Your task to perform on an android device: install app "Google Drive" Image 0: 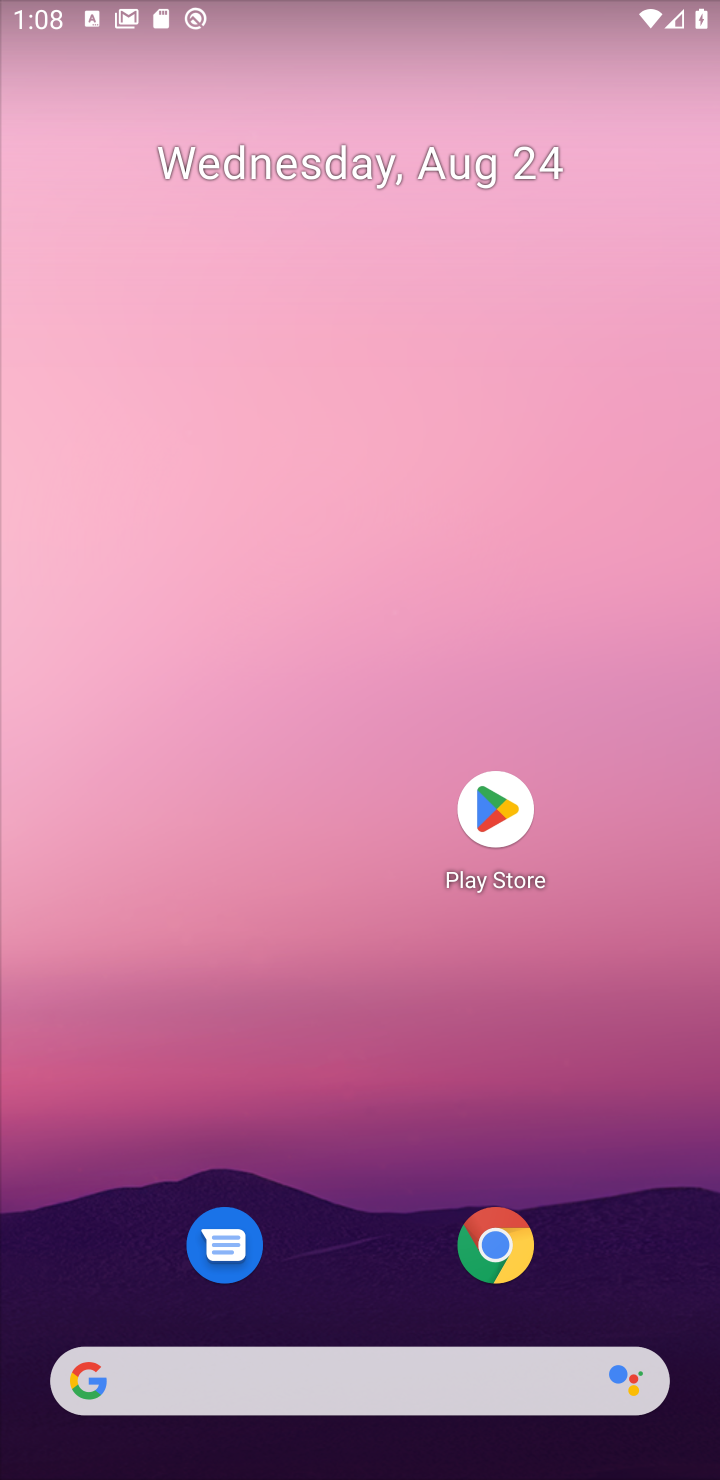
Step 0: click (486, 811)
Your task to perform on an android device: install app "Google Drive" Image 1: 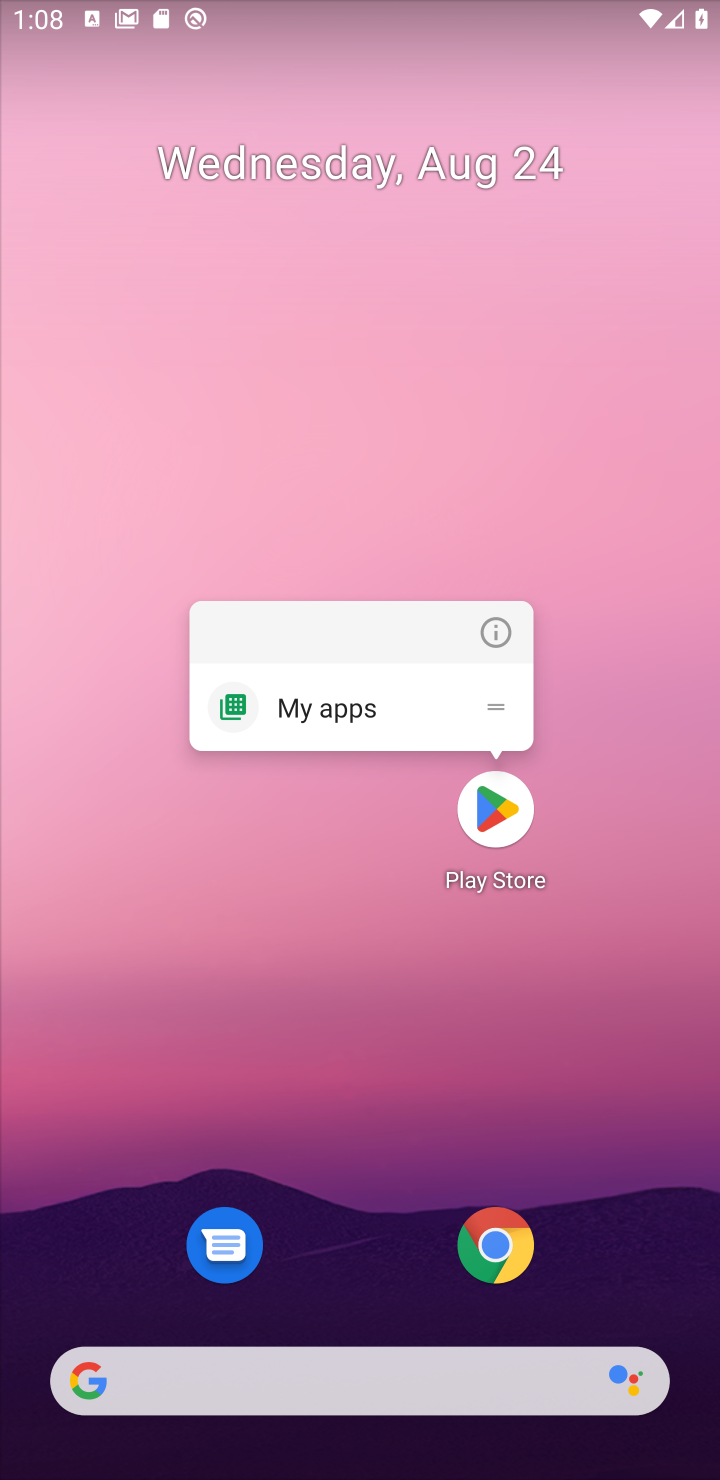
Step 1: click (497, 799)
Your task to perform on an android device: install app "Google Drive" Image 2: 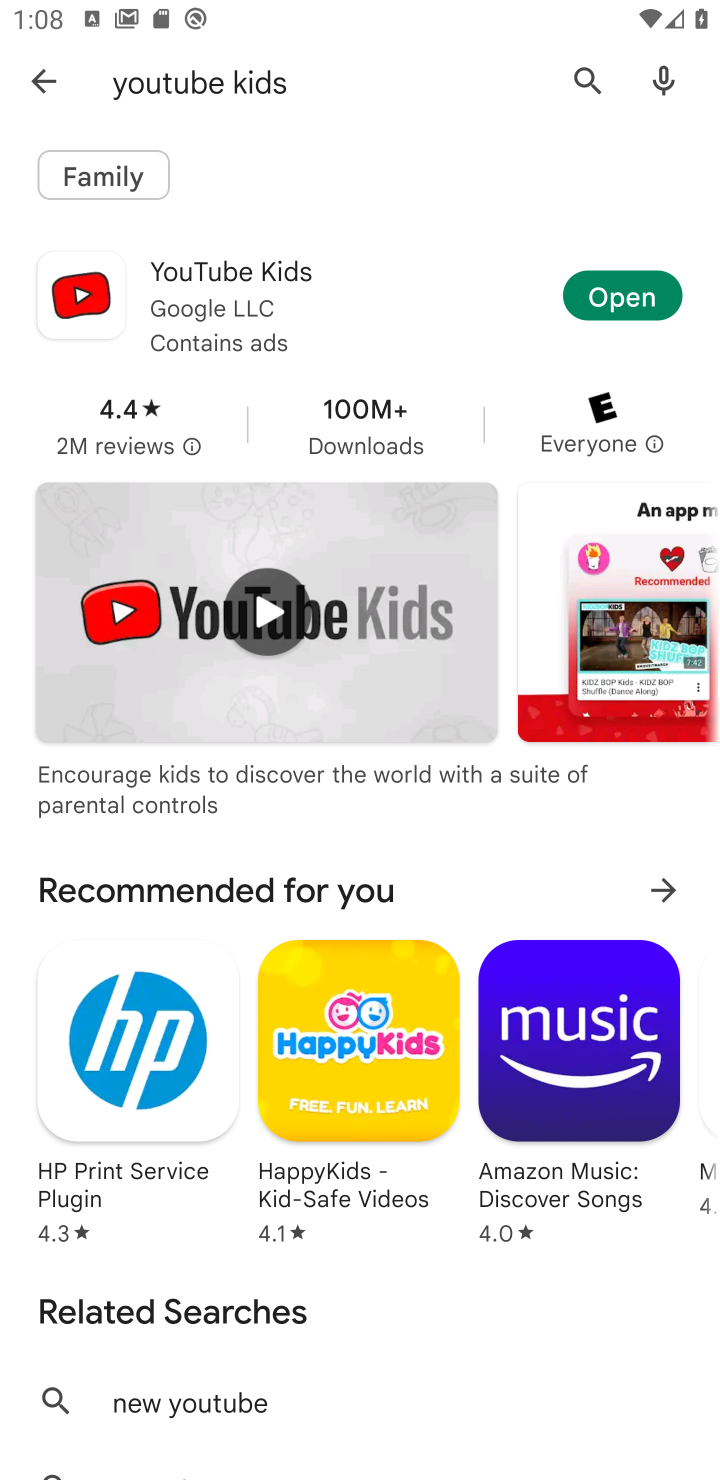
Step 2: click (580, 70)
Your task to perform on an android device: install app "Google Drive" Image 3: 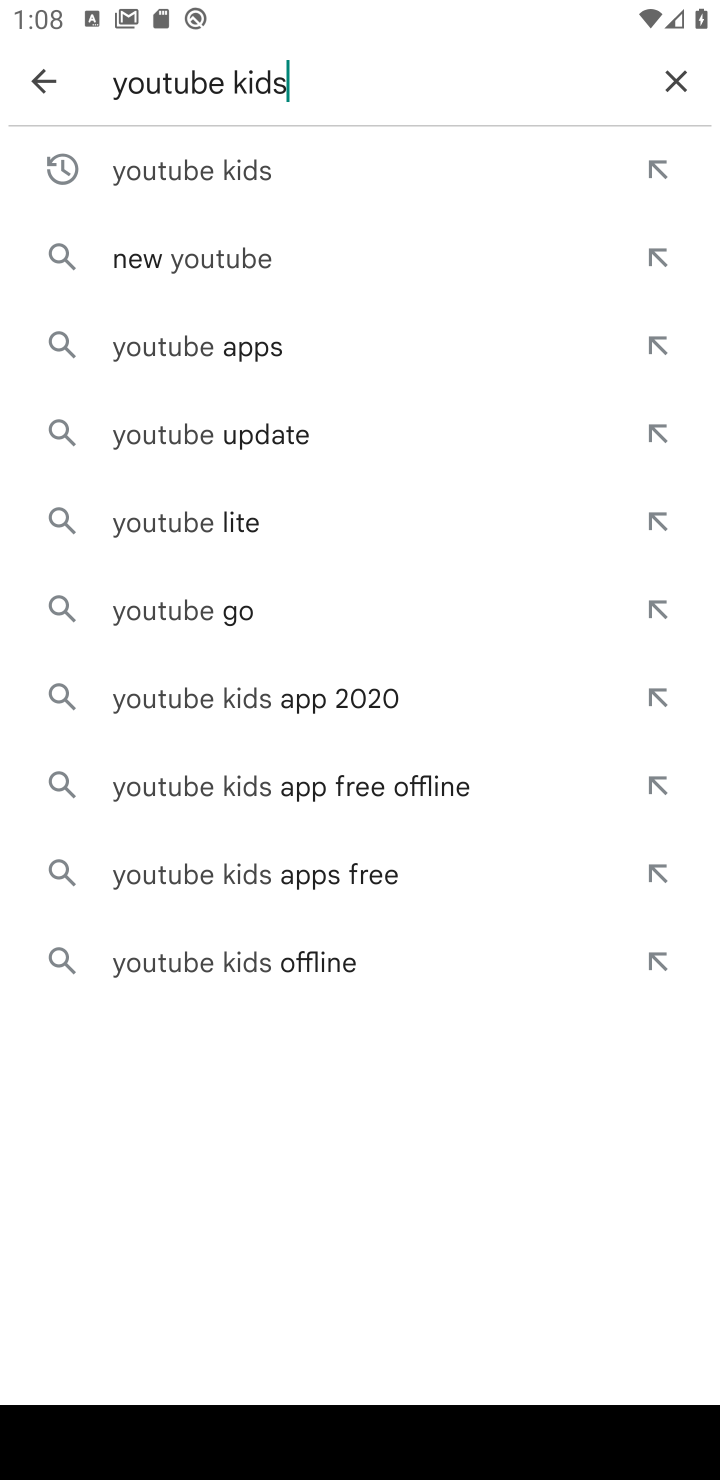
Step 3: click (671, 69)
Your task to perform on an android device: install app "Google Drive" Image 4: 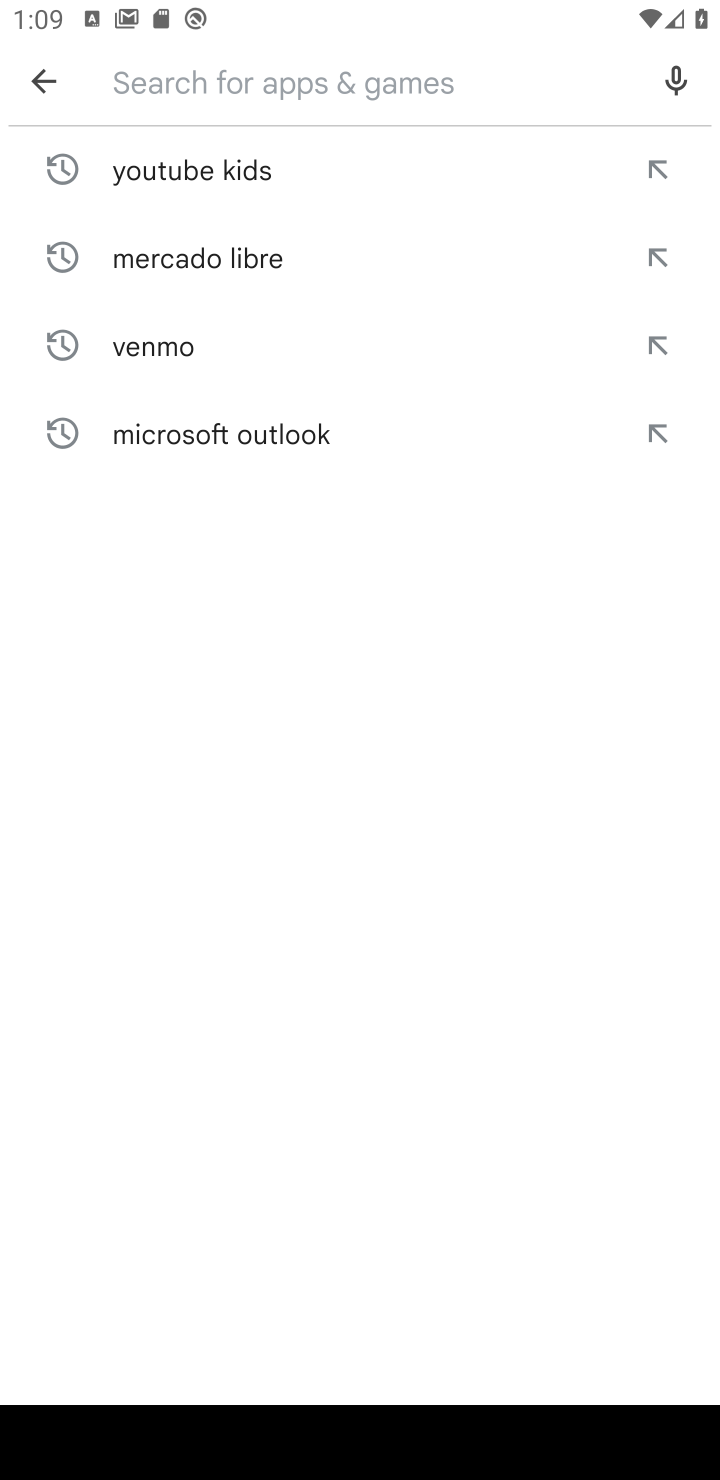
Step 4: type "Google Drive"
Your task to perform on an android device: install app "Google Drive" Image 5: 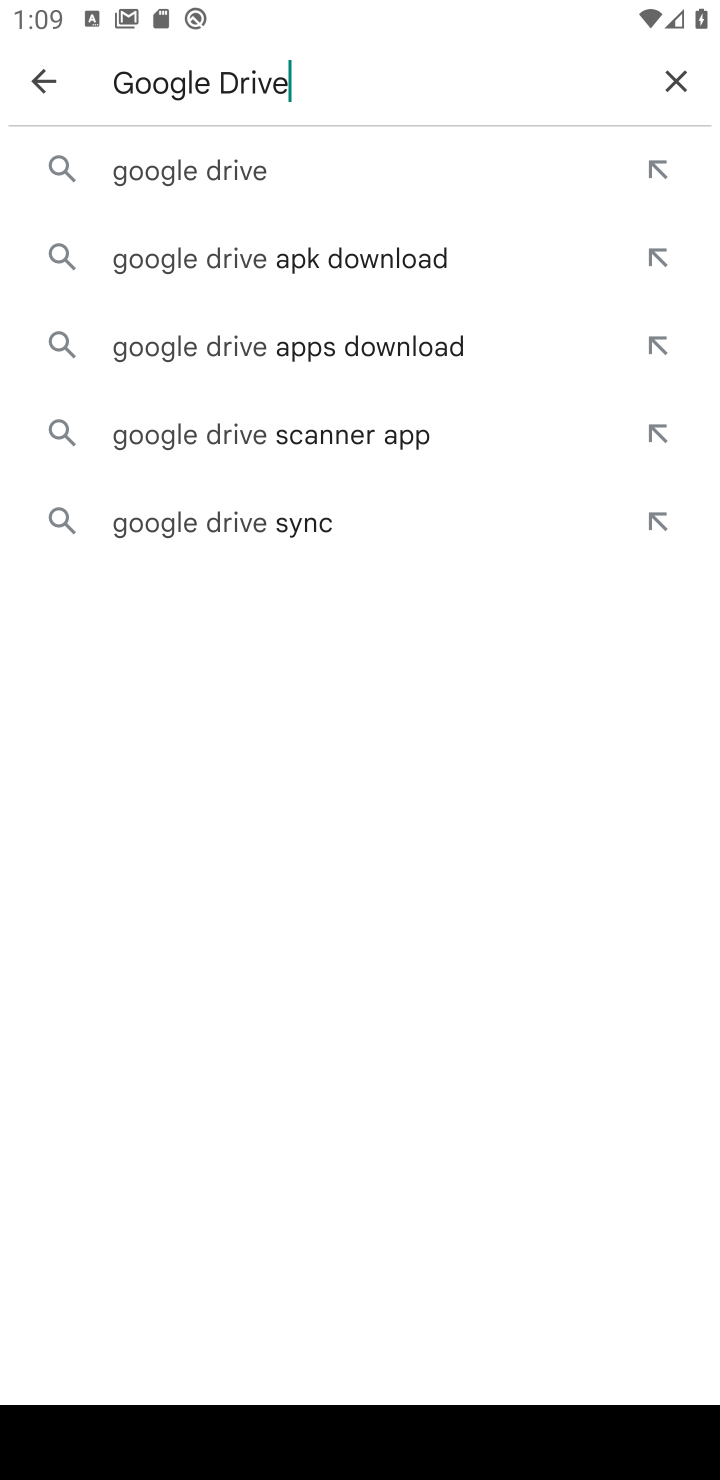
Step 5: click (199, 162)
Your task to perform on an android device: install app "Google Drive" Image 6: 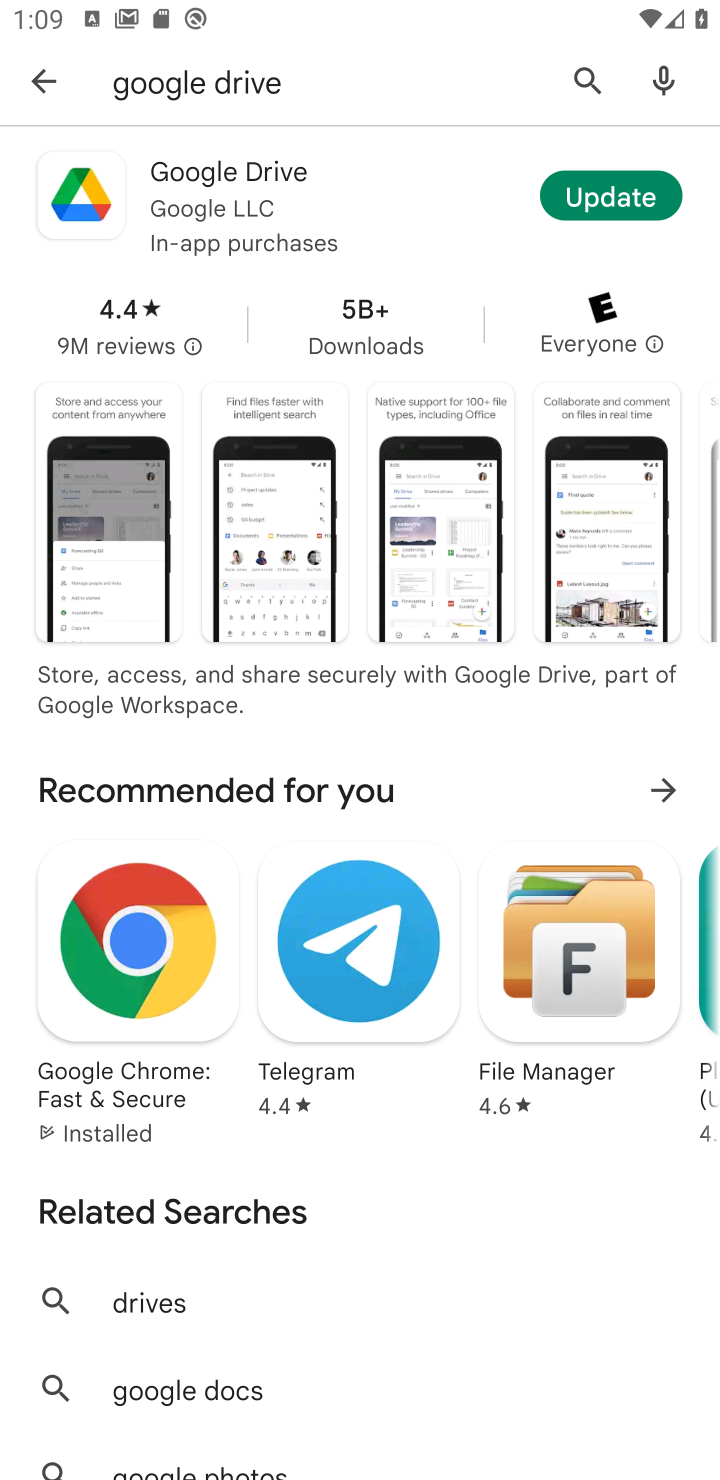
Step 6: click (167, 201)
Your task to perform on an android device: install app "Google Drive" Image 7: 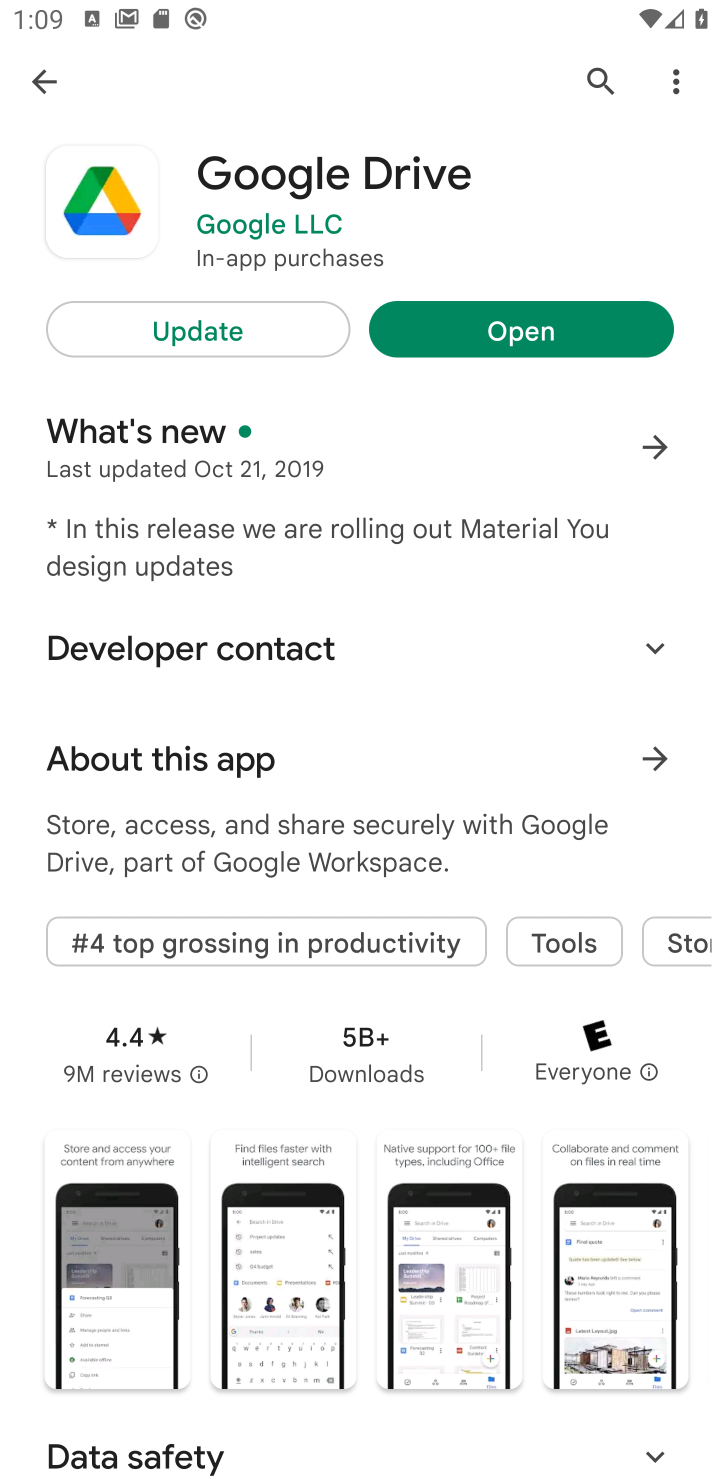
Step 7: task complete